Your task to perform on an android device: open a bookmark in the chrome app Image 0: 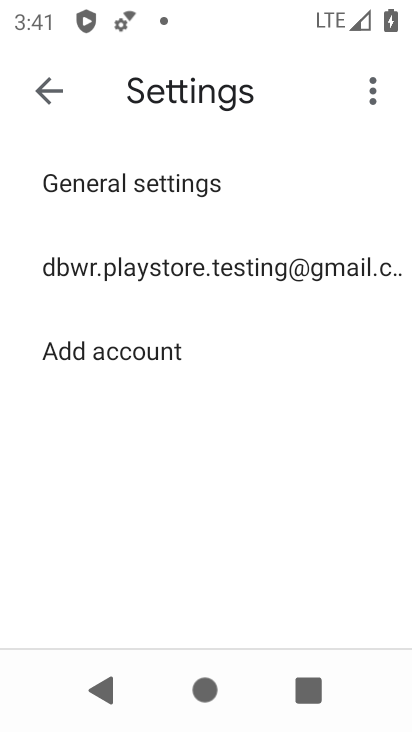
Step 0: click (377, 95)
Your task to perform on an android device: open a bookmark in the chrome app Image 1: 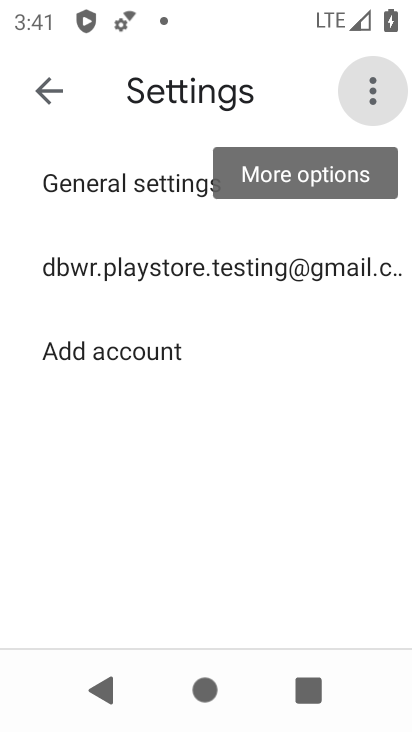
Step 1: click (377, 96)
Your task to perform on an android device: open a bookmark in the chrome app Image 2: 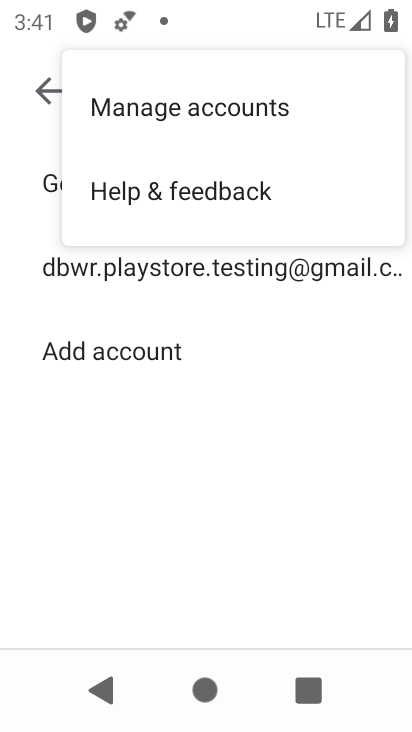
Step 2: press home button
Your task to perform on an android device: open a bookmark in the chrome app Image 3: 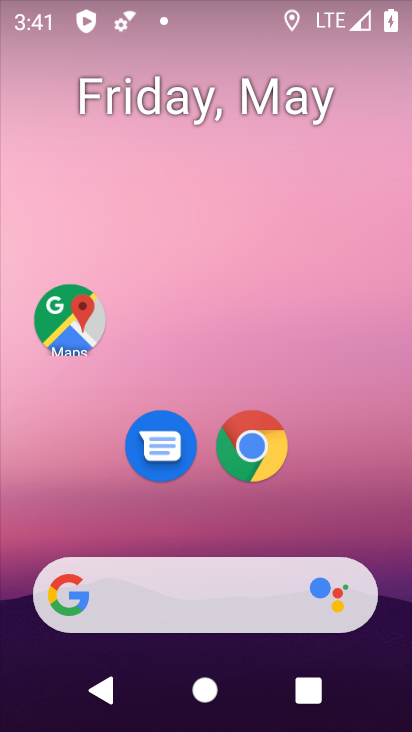
Step 3: drag from (371, 317) to (398, 135)
Your task to perform on an android device: open a bookmark in the chrome app Image 4: 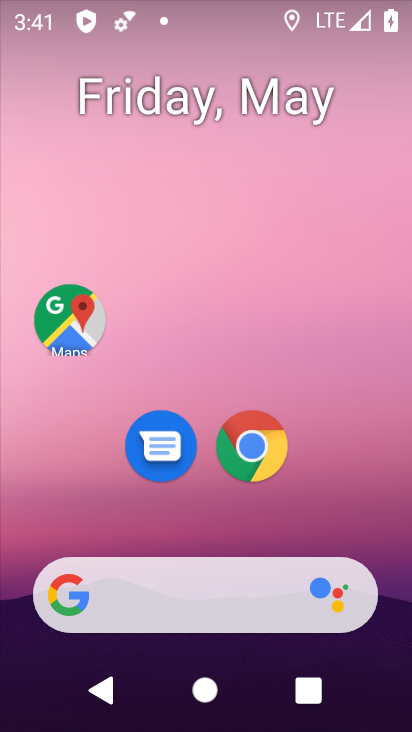
Step 4: drag from (345, 512) to (406, 388)
Your task to perform on an android device: open a bookmark in the chrome app Image 5: 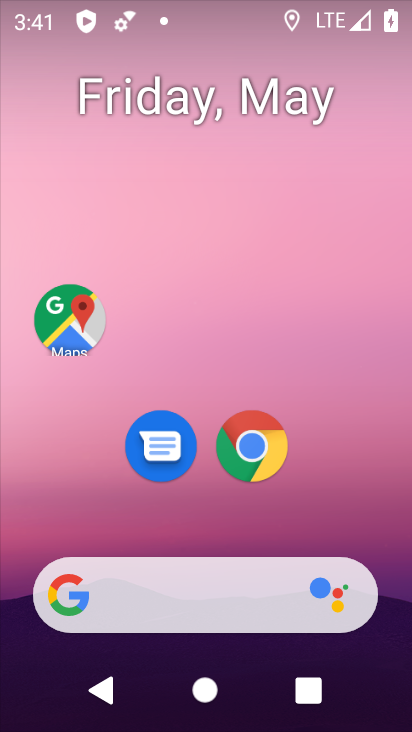
Step 5: drag from (352, 528) to (394, 178)
Your task to perform on an android device: open a bookmark in the chrome app Image 6: 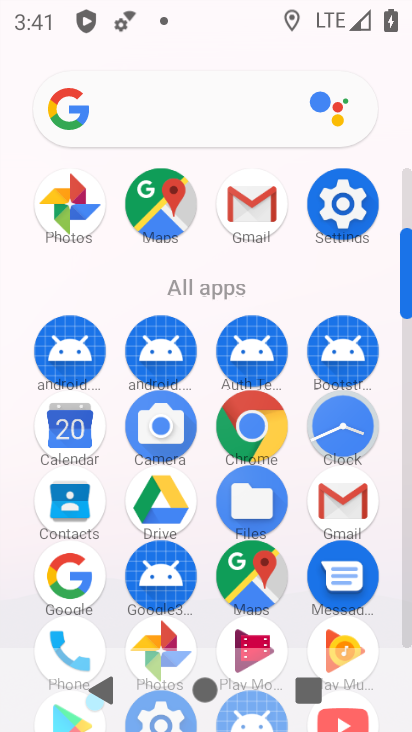
Step 6: click (229, 447)
Your task to perform on an android device: open a bookmark in the chrome app Image 7: 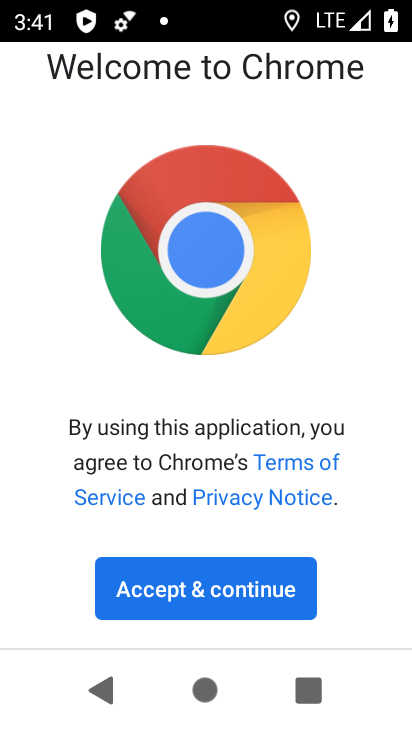
Step 7: click (209, 599)
Your task to perform on an android device: open a bookmark in the chrome app Image 8: 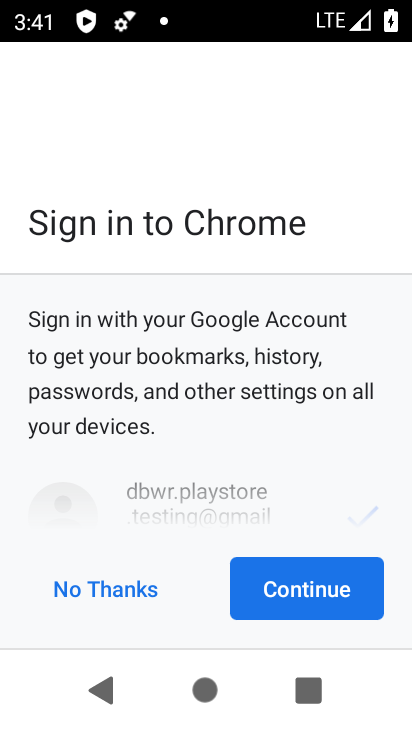
Step 8: click (106, 602)
Your task to perform on an android device: open a bookmark in the chrome app Image 9: 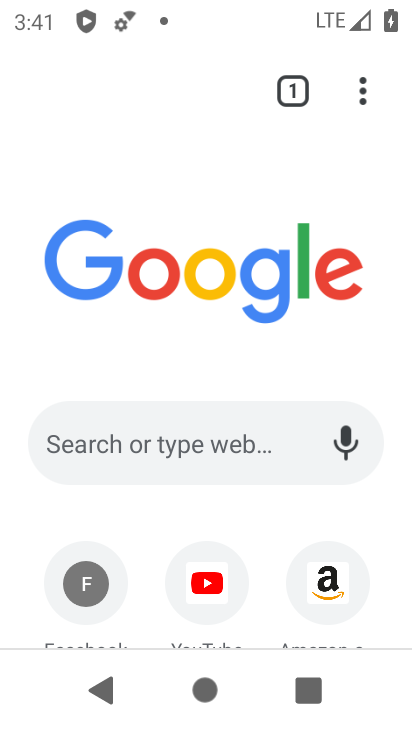
Step 9: drag from (362, 92) to (142, 347)
Your task to perform on an android device: open a bookmark in the chrome app Image 10: 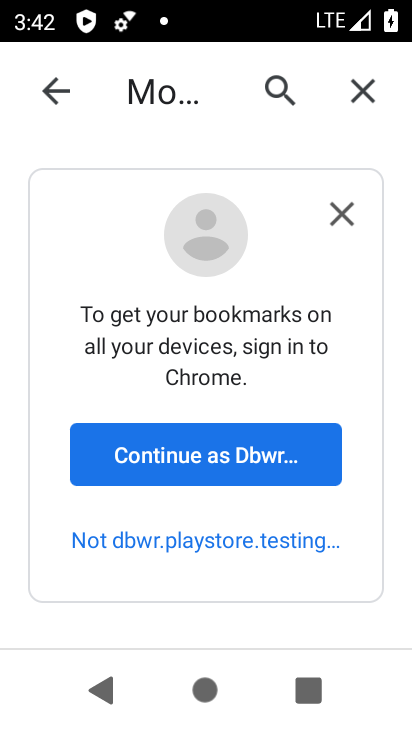
Step 10: drag from (205, 599) to (309, 239)
Your task to perform on an android device: open a bookmark in the chrome app Image 11: 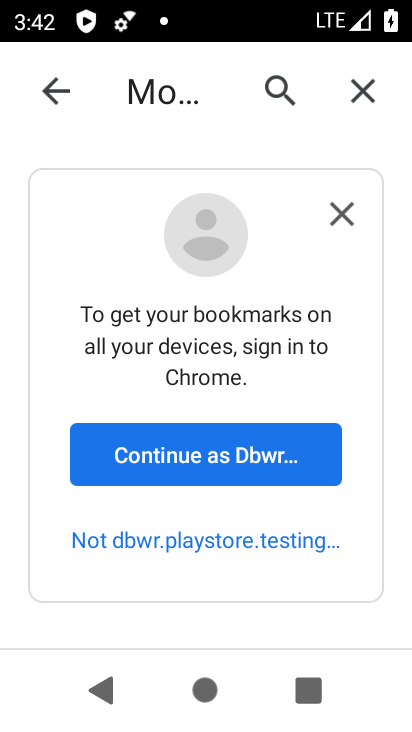
Step 11: click (234, 449)
Your task to perform on an android device: open a bookmark in the chrome app Image 12: 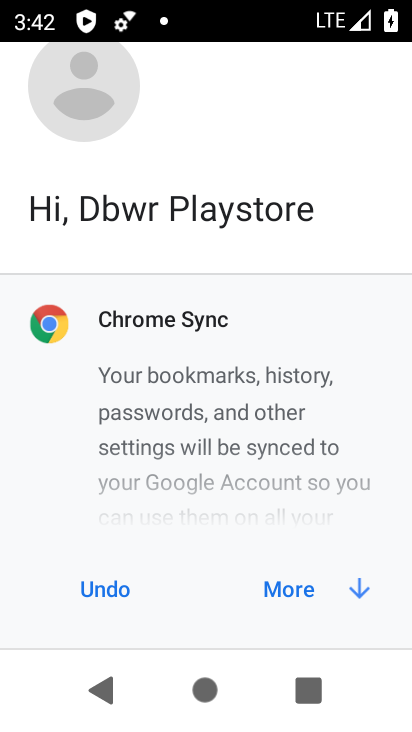
Step 12: click (295, 563)
Your task to perform on an android device: open a bookmark in the chrome app Image 13: 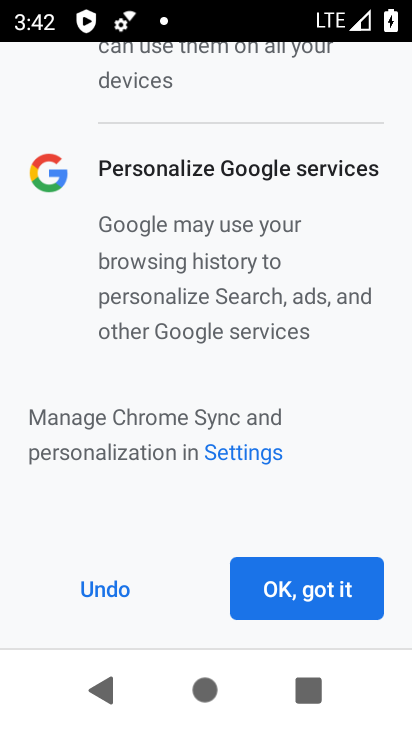
Step 13: click (287, 594)
Your task to perform on an android device: open a bookmark in the chrome app Image 14: 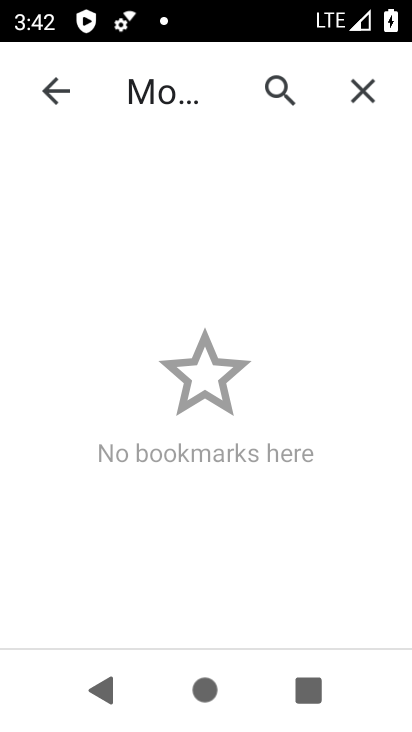
Step 14: task complete